Your task to perform on an android device: What's the weather going to be this weekend? Image 0: 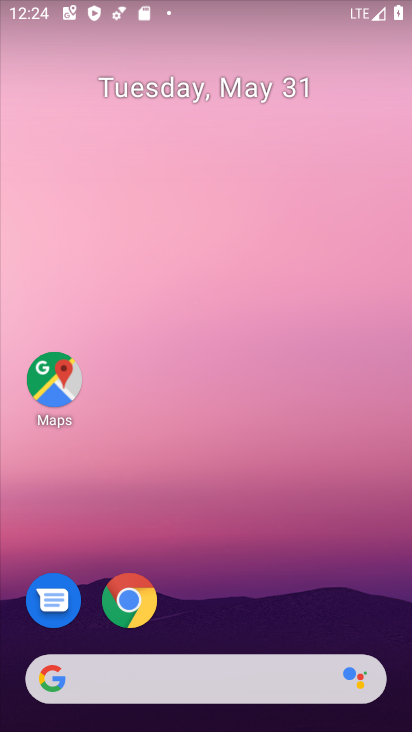
Step 0: drag from (212, 730) to (183, 4)
Your task to perform on an android device: What's the weather going to be this weekend? Image 1: 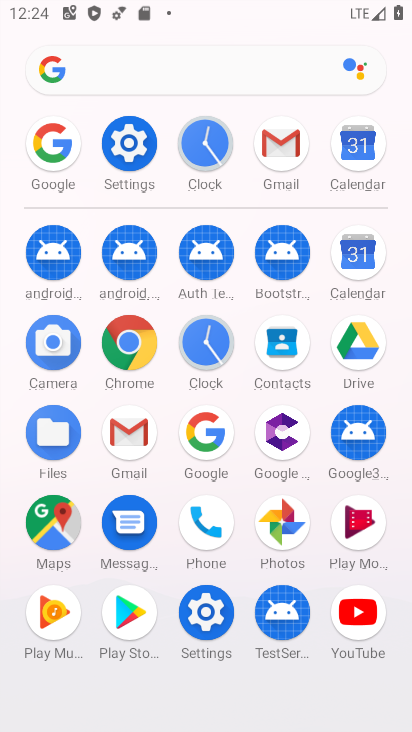
Step 1: click (211, 433)
Your task to perform on an android device: What's the weather going to be this weekend? Image 2: 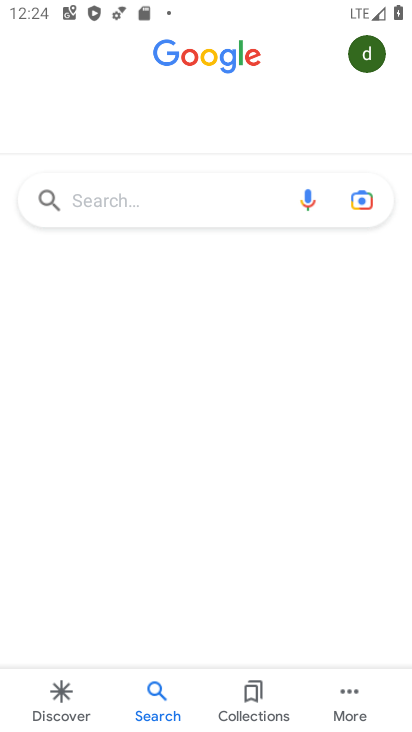
Step 2: click (165, 202)
Your task to perform on an android device: What's the weather going to be this weekend? Image 3: 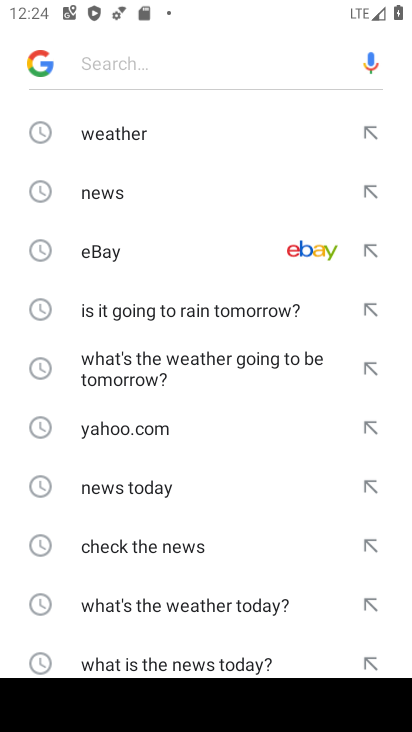
Step 3: click (116, 132)
Your task to perform on an android device: What's the weather going to be this weekend? Image 4: 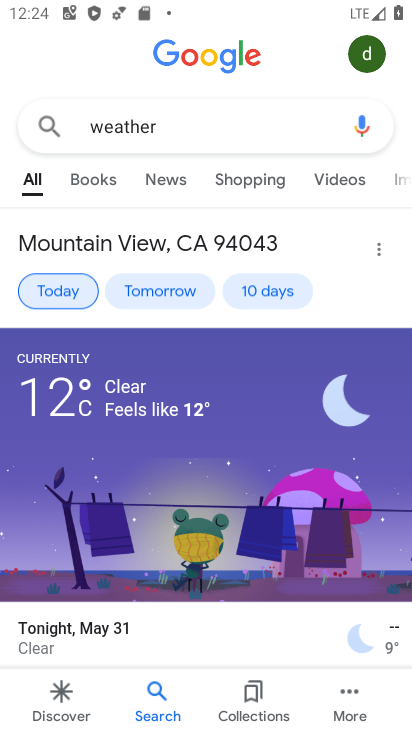
Step 4: click (264, 291)
Your task to perform on an android device: What's the weather going to be this weekend? Image 5: 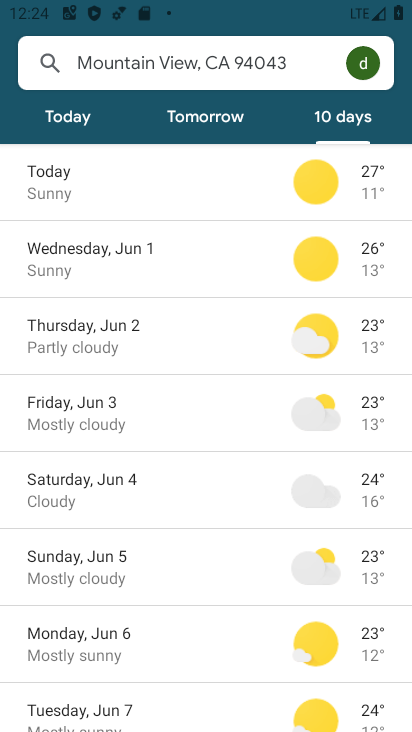
Step 5: click (84, 500)
Your task to perform on an android device: What's the weather going to be this weekend? Image 6: 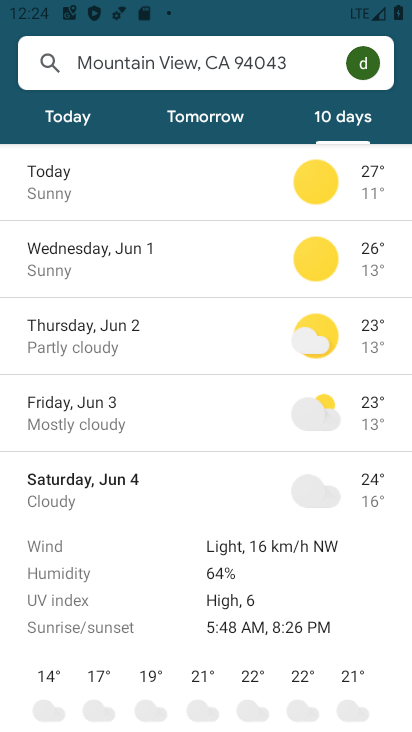
Step 6: task complete